Your task to perform on an android device: turn off data saver in the chrome app Image 0: 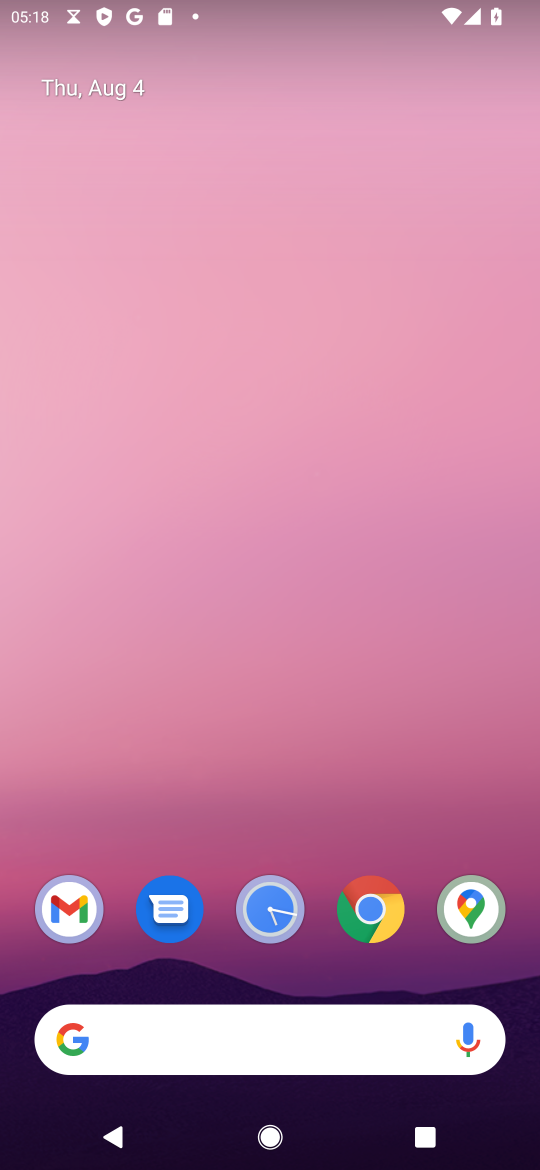
Step 0: click (369, 905)
Your task to perform on an android device: turn off data saver in the chrome app Image 1: 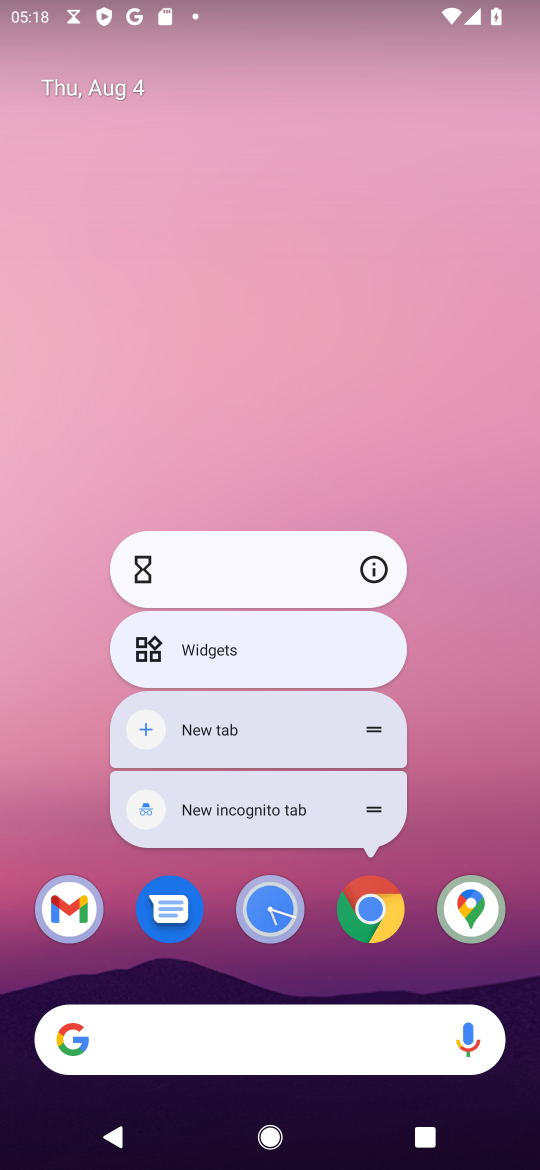
Step 1: click (372, 901)
Your task to perform on an android device: turn off data saver in the chrome app Image 2: 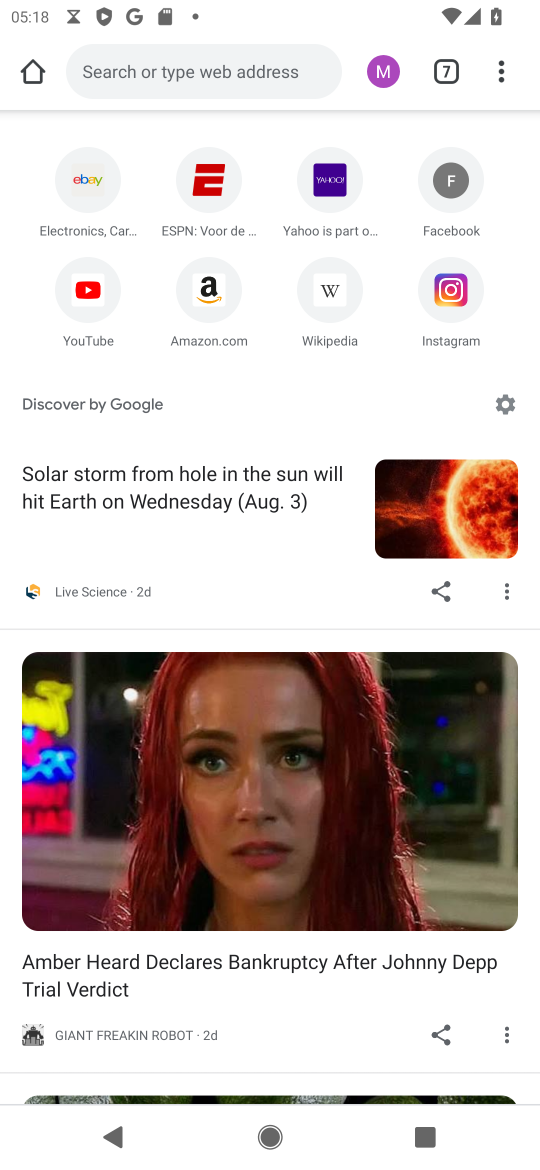
Step 2: drag from (497, 71) to (339, 717)
Your task to perform on an android device: turn off data saver in the chrome app Image 3: 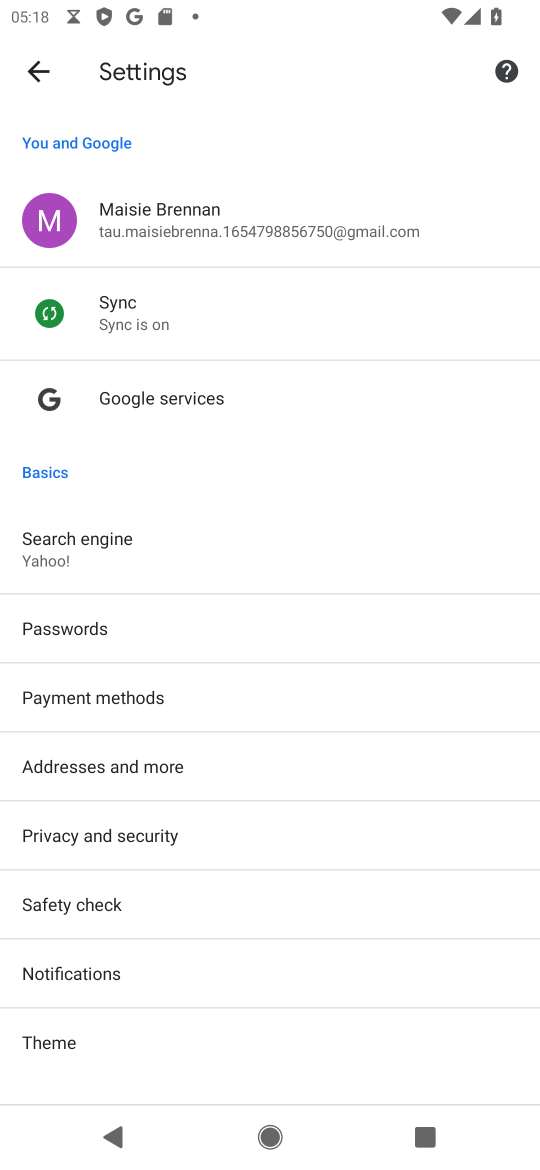
Step 3: drag from (203, 984) to (433, 228)
Your task to perform on an android device: turn off data saver in the chrome app Image 4: 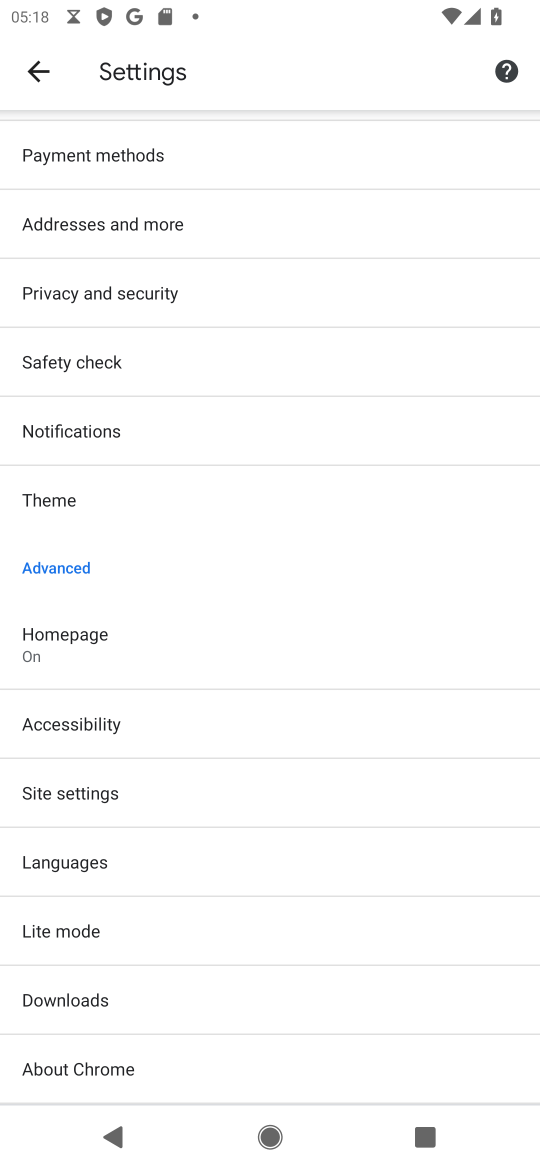
Step 4: click (147, 927)
Your task to perform on an android device: turn off data saver in the chrome app Image 5: 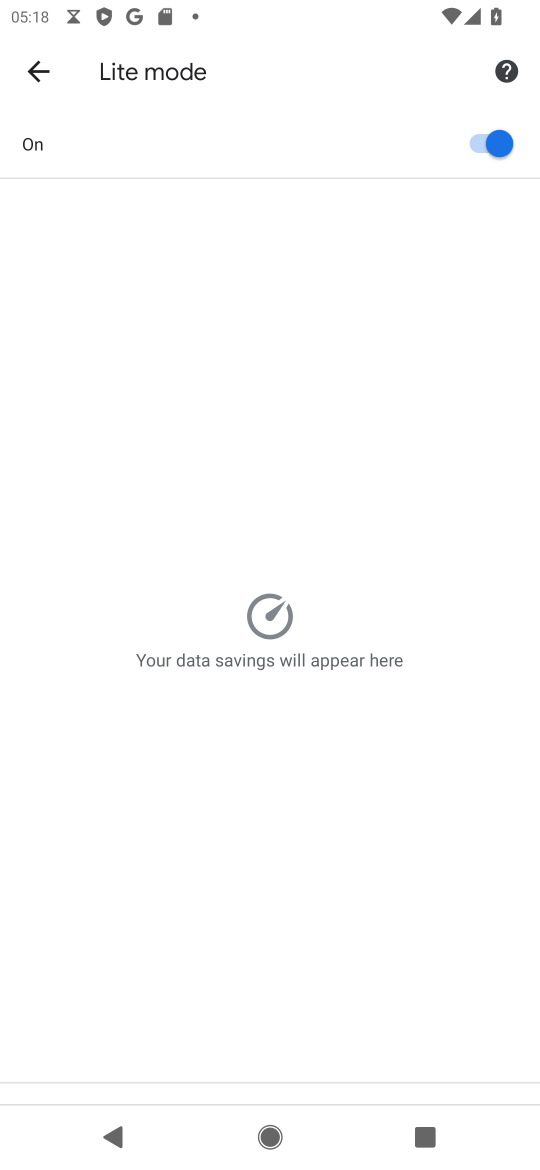
Step 5: click (483, 149)
Your task to perform on an android device: turn off data saver in the chrome app Image 6: 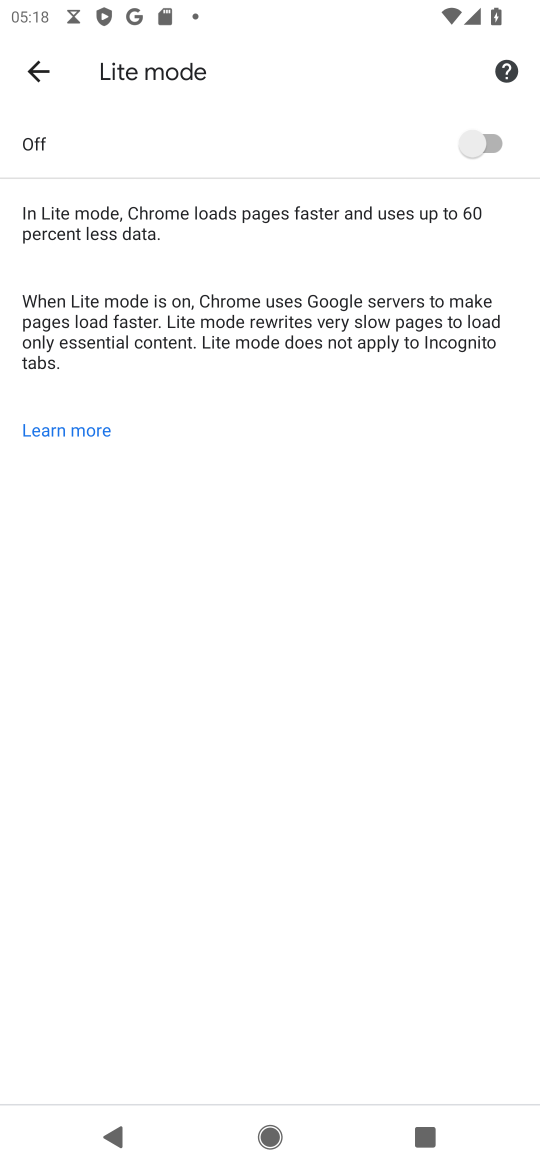
Step 6: task complete